Your task to perform on an android device: Go to Android settings Image 0: 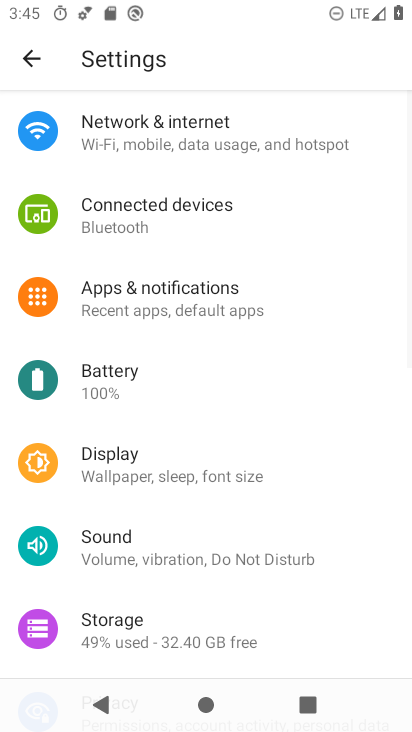
Step 0: press home button
Your task to perform on an android device: Go to Android settings Image 1: 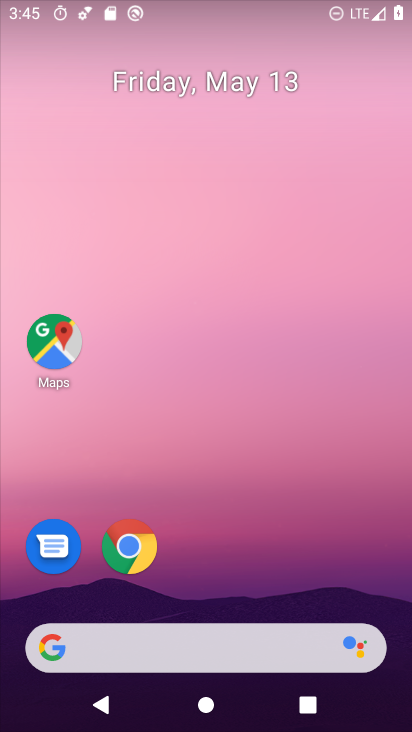
Step 1: drag from (210, 459) to (265, 150)
Your task to perform on an android device: Go to Android settings Image 2: 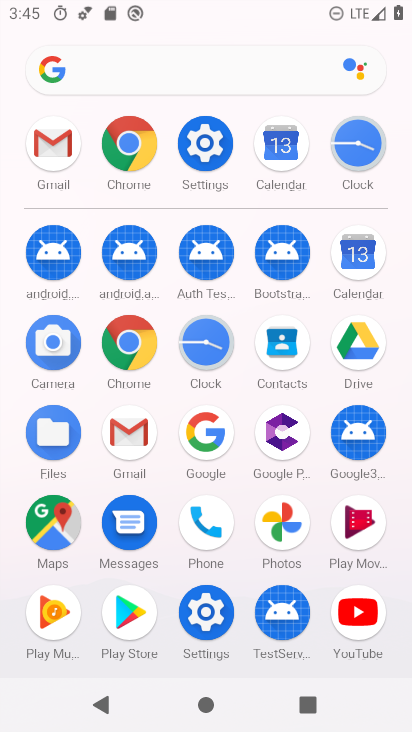
Step 2: click (215, 156)
Your task to perform on an android device: Go to Android settings Image 3: 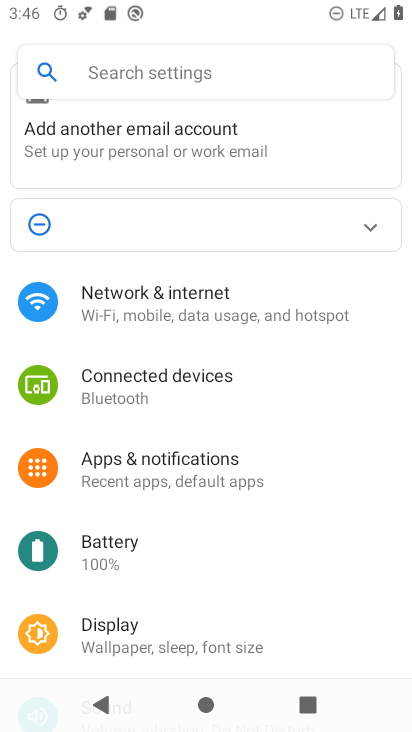
Step 3: drag from (172, 494) to (233, 194)
Your task to perform on an android device: Go to Android settings Image 4: 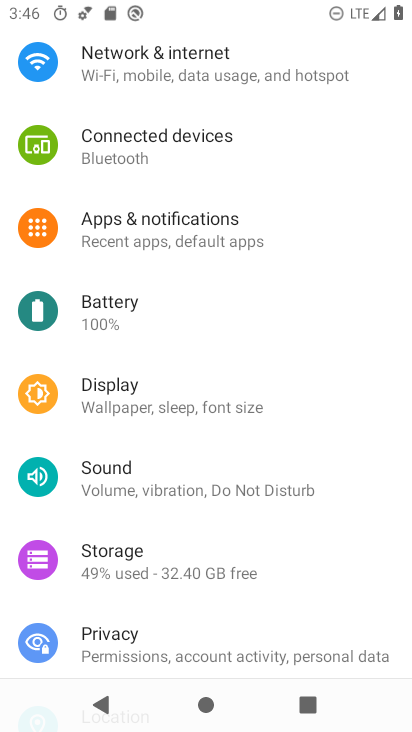
Step 4: drag from (231, 467) to (256, 251)
Your task to perform on an android device: Go to Android settings Image 5: 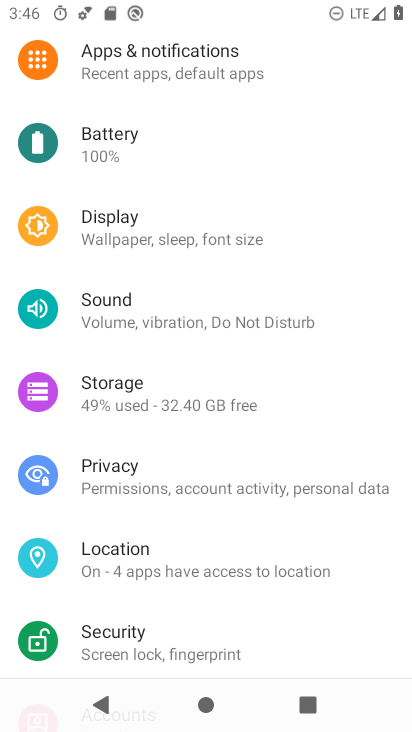
Step 5: drag from (212, 534) to (262, 253)
Your task to perform on an android device: Go to Android settings Image 6: 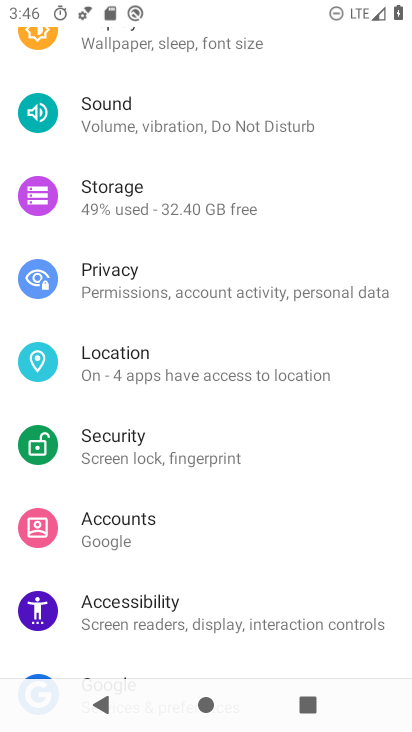
Step 6: drag from (205, 517) to (258, 187)
Your task to perform on an android device: Go to Android settings Image 7: 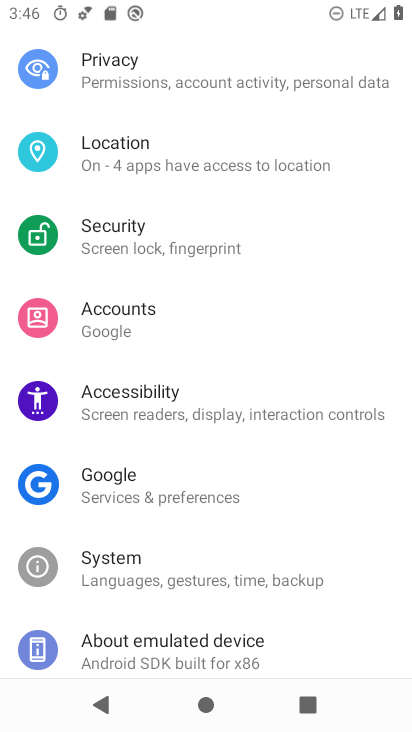
Step 7: click (200, 638)
Your task to perform on an android device: Go to Android settings Image 8: 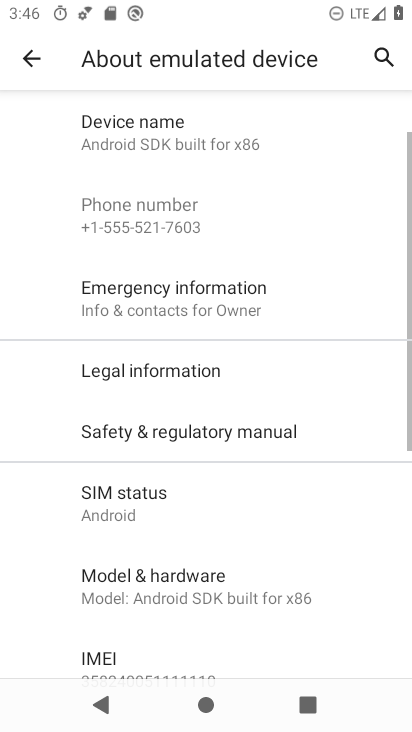
Step 8: drag from (223, 535) to (255, 320)
Your task to perform on an android device: Go to Android settings Image 9: 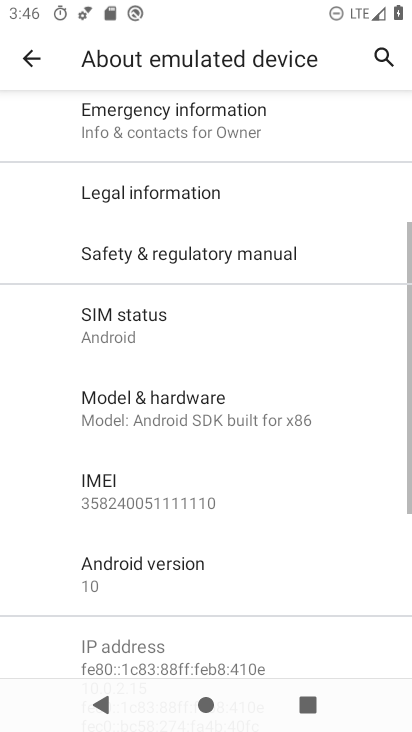
Step 9: click (208, 565)
Your task to perform on an android device: Go to Android settings Image 10: 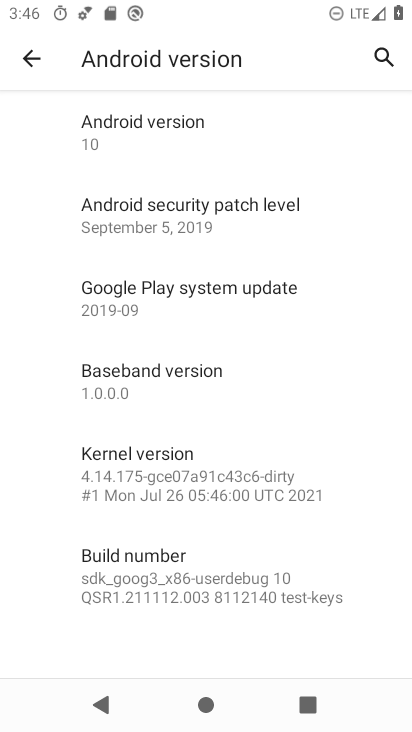
Step 10: task complete